Your task to perform on an android device: What's the weather today? Image 0: 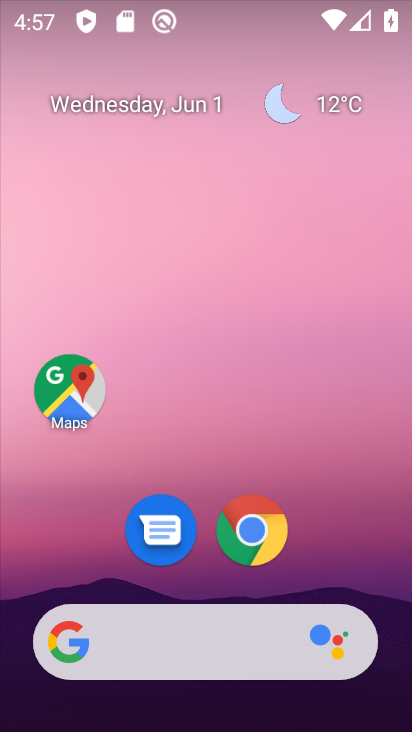
Step 0: click (199, 660)
Your task to perform on an android device: What's the weather today? Image 1: 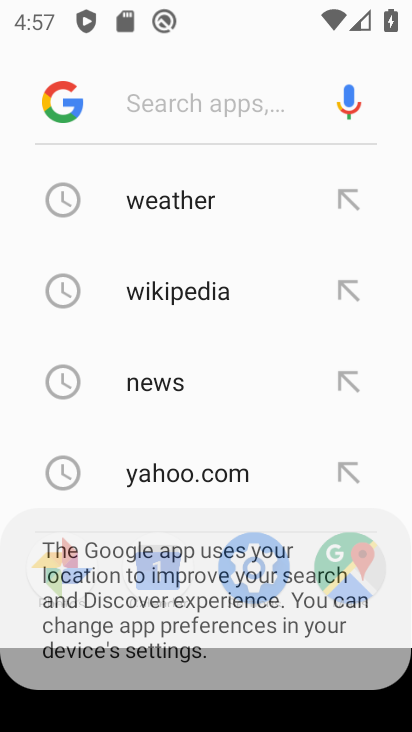
Step 1: click (152, 196)
Your task to perform on an android device: What's the weather today? Image 2: 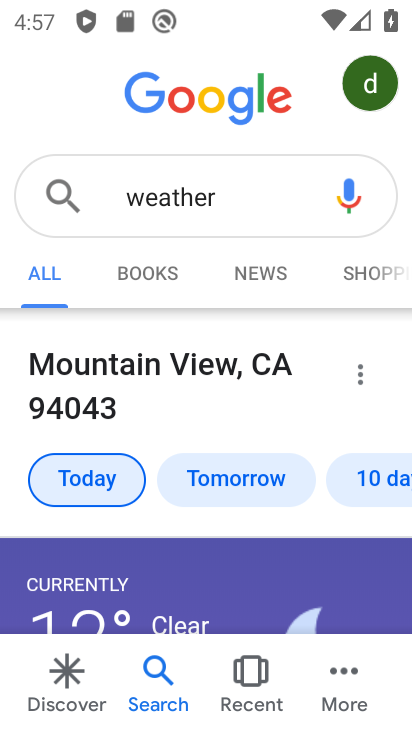
Step 2: task complete